Your task to perform on an android device: Open the web browser Image 0: 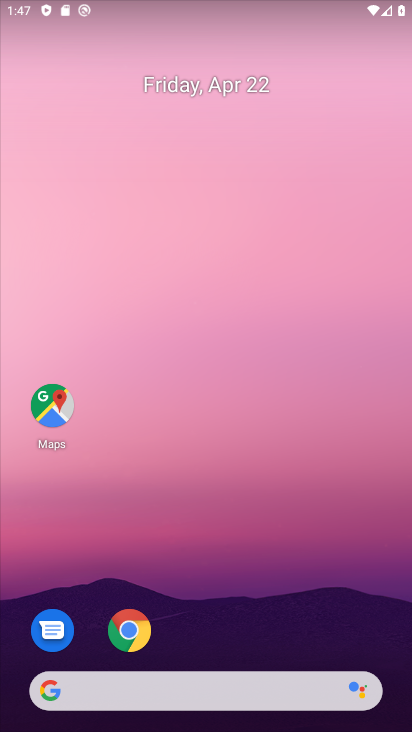
Step 0: drag from (128, 684) to (217, 226)
Your task to perform on an android device: Open the web browser Image 1: 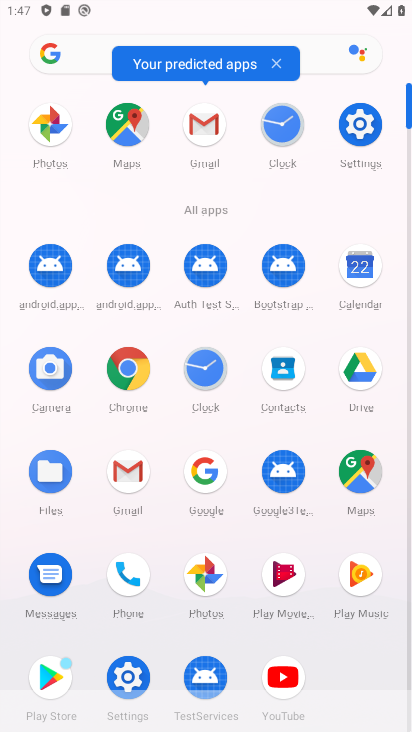
Step 1: click (120, 382)
Your task to perform on an android device: Open the web browser Image 2: 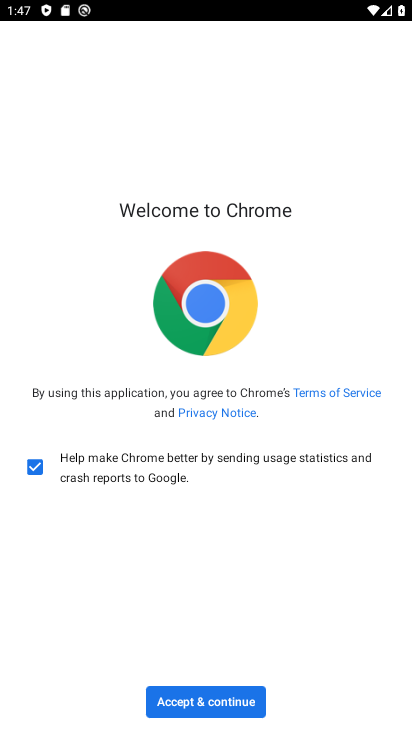
Step 2: click (196, 704)
Your task to perform on an android device: Open the web browser Image 3: 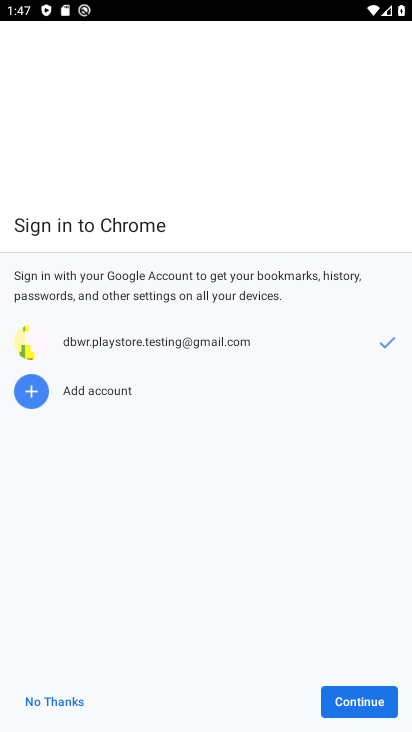
Step 3: click (383, 706)
Your task to perform on an android device: Open the web browser Image 4: 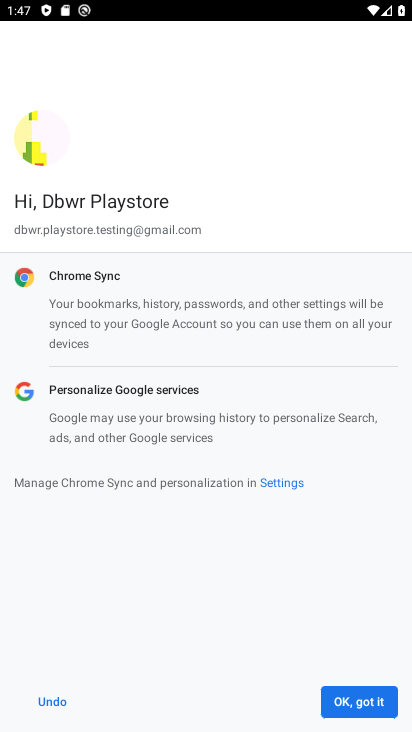
Step 4: click (381, 698)
Your task to perform on an android device: Open the web browser Image 5: 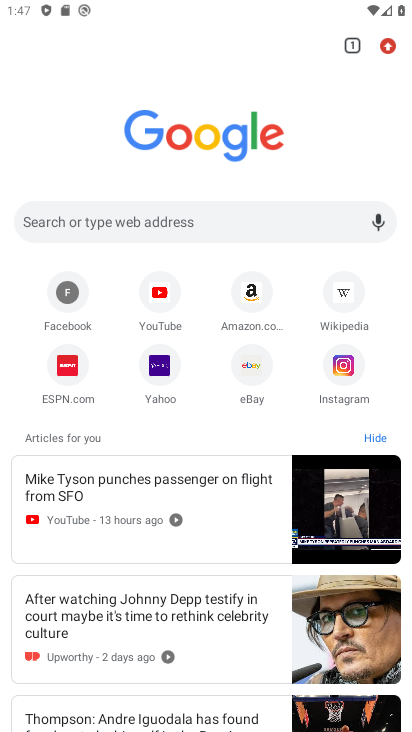
Step 5: task complete